Your task to perform on an android device: delete the emails in spam in the gmail app Image 0: 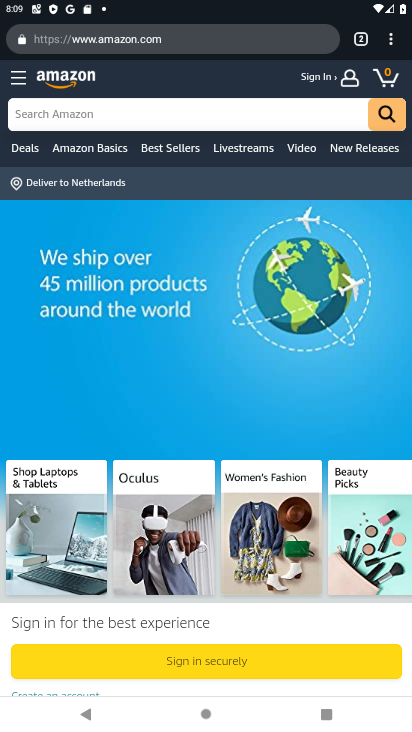
Step 0: press back button
Your task to perform on an android device: delete the emails in spam in the gmail app Image 1: 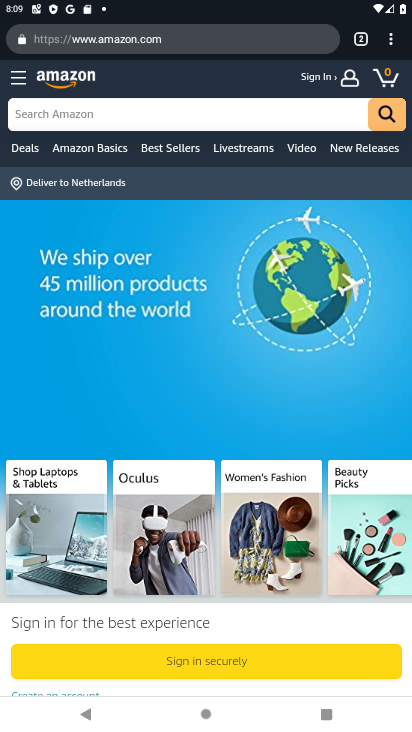
Step 1: press back button
Your task to perform on an android device: delete the emails in spam in the gmail app Image 2: 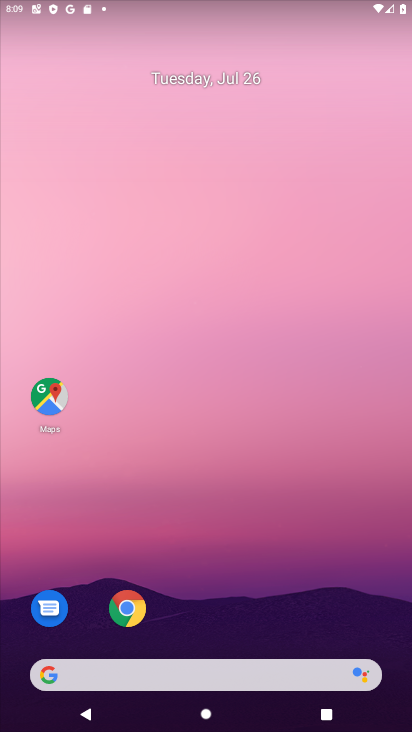
Step 2: drag from (261, 678) to (154, 288)
Your task to perform on an android device: delete the emails in spam in the gmail app Image 3: 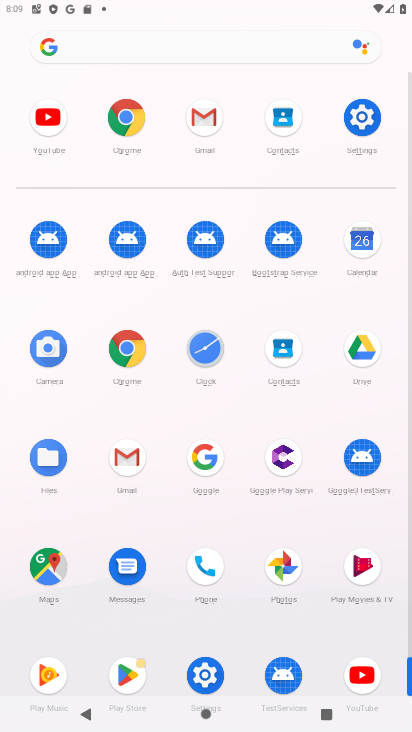
Step 3: click (119, 461)
Your task to perform on an android device: delete the emails in spam in the gmail app Image 4: 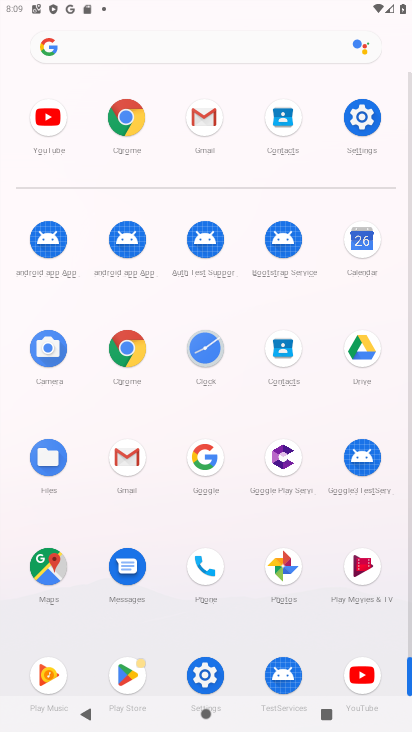
Step 4: click (119, 461)
Your task to perform on an android device: delete the emails in spam in the gmail app Image 5: 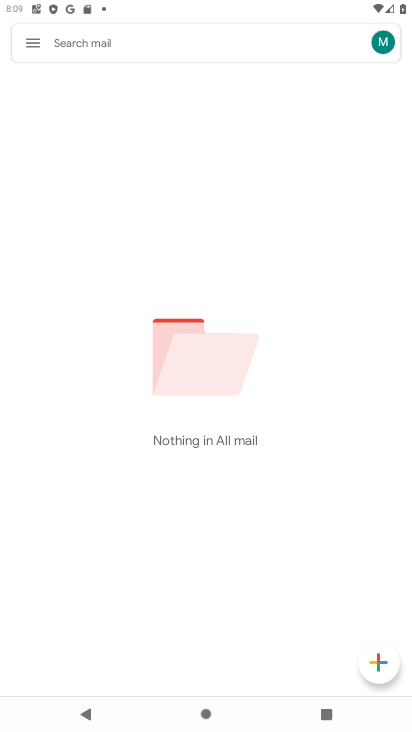
Step 5: click (39, 41)
Your task to perform on an android device: delete the emails in spam in the gmail app Image 6: 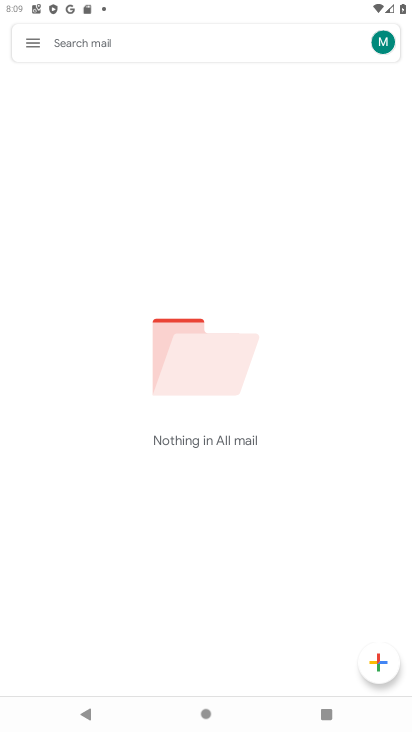
Step 6: click (38, 40)
Your task to perform on an android device: delete the emails in spam in the gmail app Image 7: 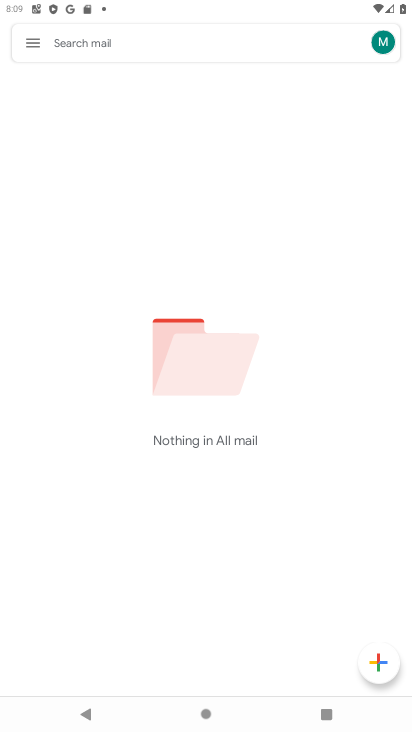
Step 7: click (29, 28)
Your task to perform on an android device: delete the emails in spam in the gmail app Image 8: 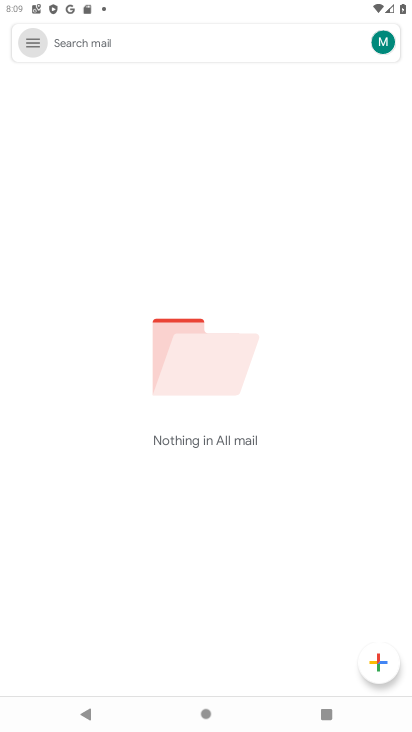
Step 8: click (29, 29)
Your task to perform on an android device: delete the emails in spam in the gmail app Image 9: 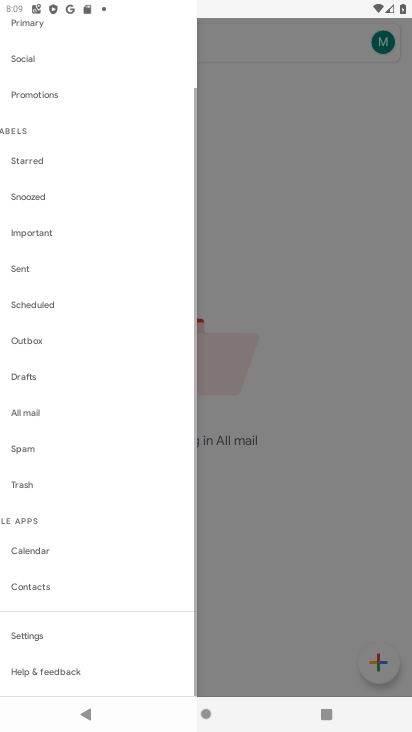
Step 9: click (32, 38)
Your task to perform on an android device: delete the emails in spam in the gmail app Image 10: 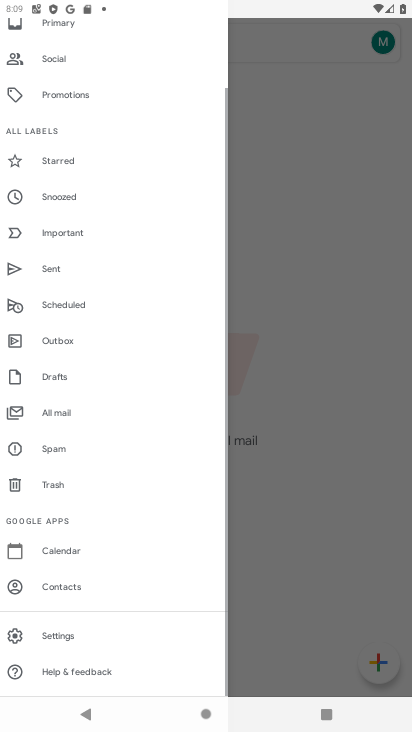
Step 10: click (32, 39)
Your task to perform on an android device: delete the emails in spam in the gmail app Image 11: 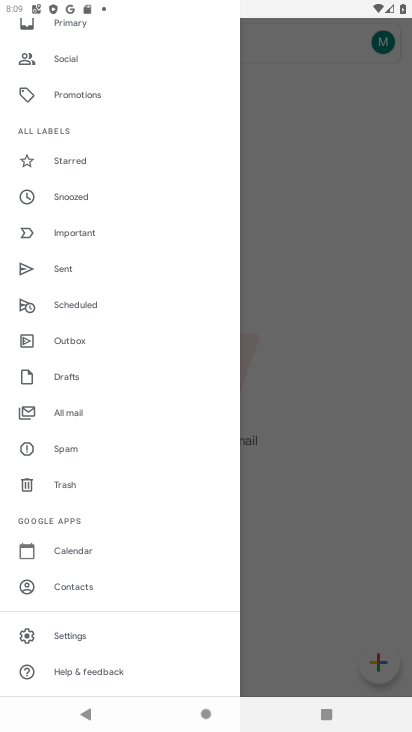
Step 11: click (65, 444)
Your task to perform on an android device: delete the emails in spam in the gmail app Image 12: 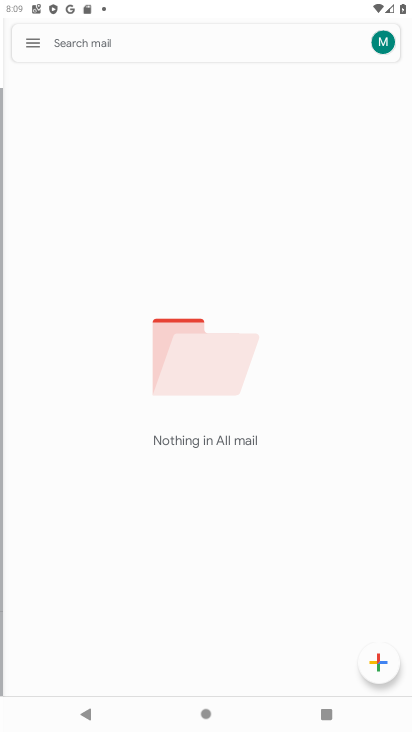
Step 12: click (68, 444)
Your task to perform on an android device: delete the emails in spam in the gmail app Image 13: 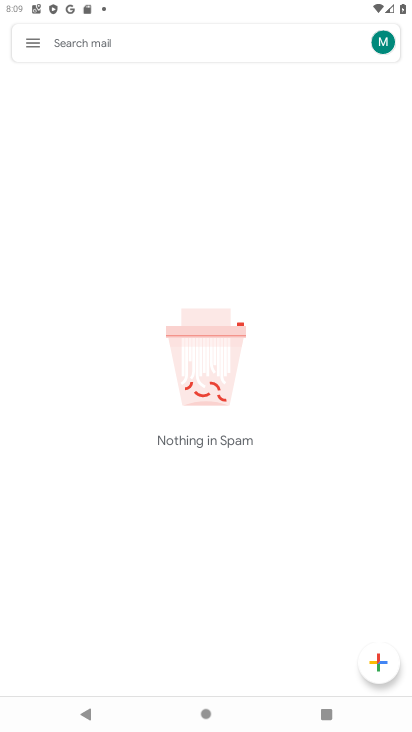
Step 13: task complete